Your task to perform on an android device: check google app version Image 0: 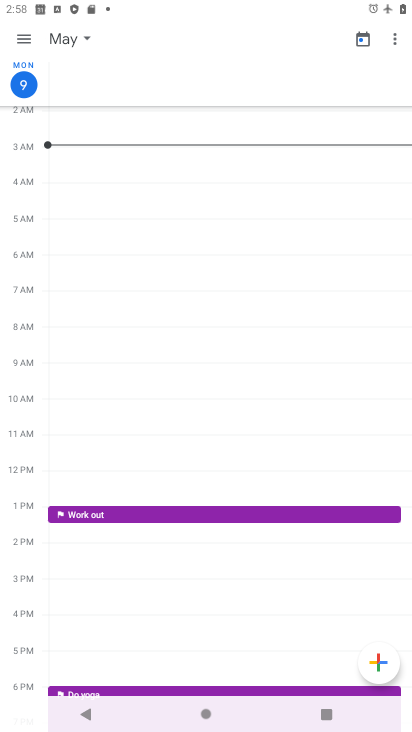
Step 0: press home button
Your task to perform on an android device: check google app version Image 1: 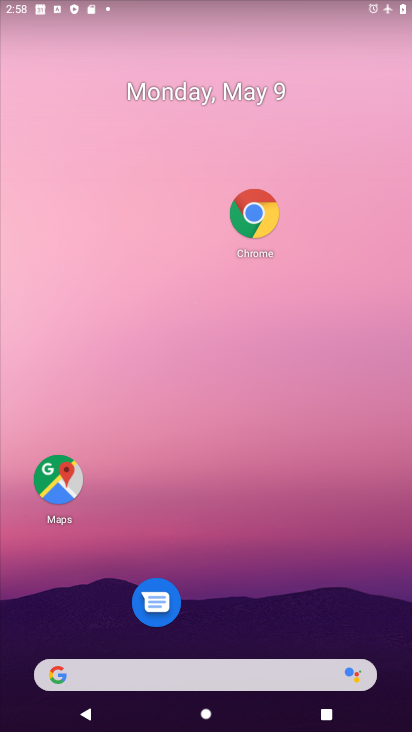
Step 1: click (233, 225)
Your task to perform on an android device: check google app version Image 2: 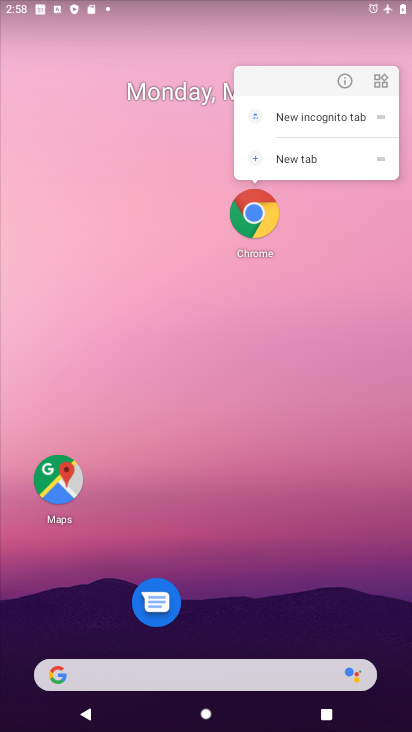
Step 2: click (352, 87)
Your task to perform on an android device: check google app version Image 3: 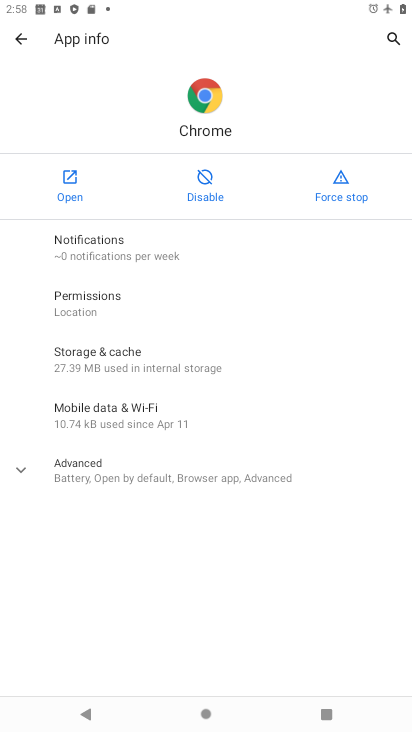
Step 3: click (166, 470)
Your task to perform on an android device: check google app version Image 4: 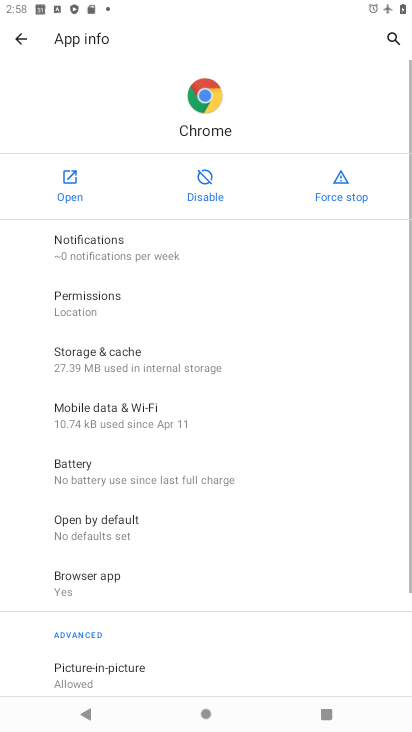
Step 4: task complete